Your task to perform on an android device: Open Google Chrome and click the shortcut for Amazon.com Image 0: 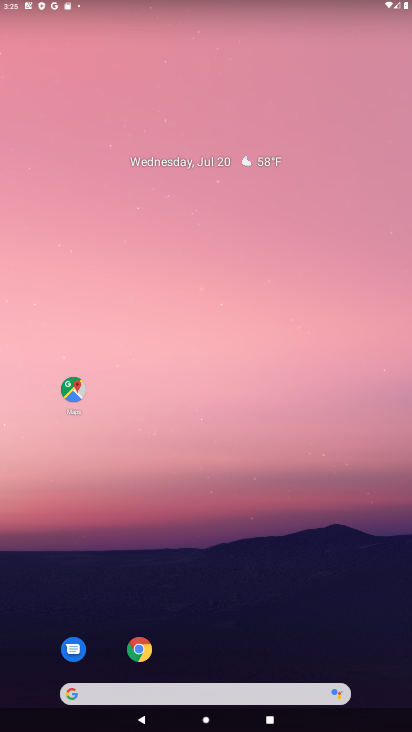
Step 0: click (142, 649)
Your task to perform on an android device: Open Google Chrome and click the shortcut for Amazon.com Image 1: 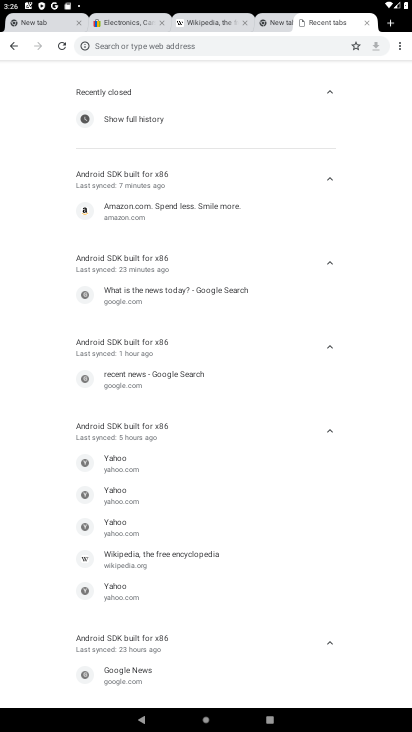
Step 1: click (399, 47)
Your task to perform on an android device: Open Google Chrome and click the shortcut for Amazon.com Image 2: 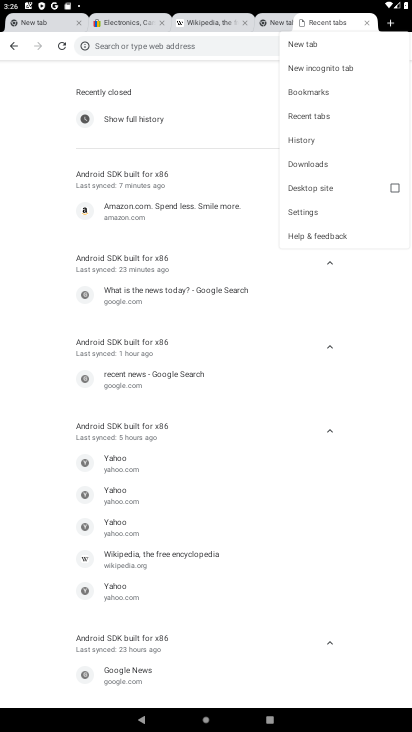
Step 2: click (315, 43)
Your task to perform on an android device: Open Google Chrome and click the shortcut for Amazon.com Image 3: 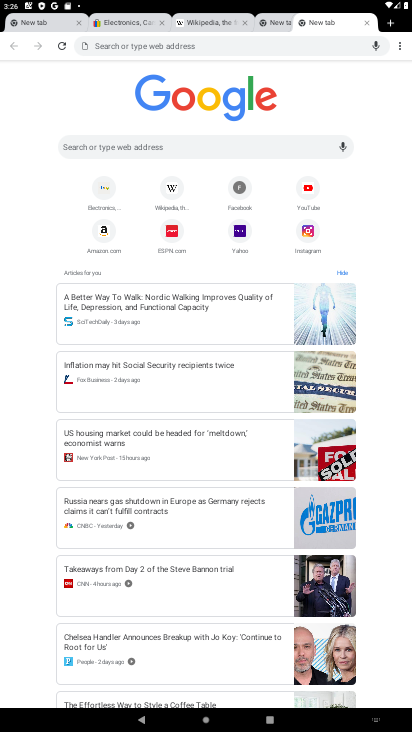
Step 3: click (106, 227)
Your task to perform on an android device: Open Google Chrome and click the shortcut for Amazon.com Image 4: 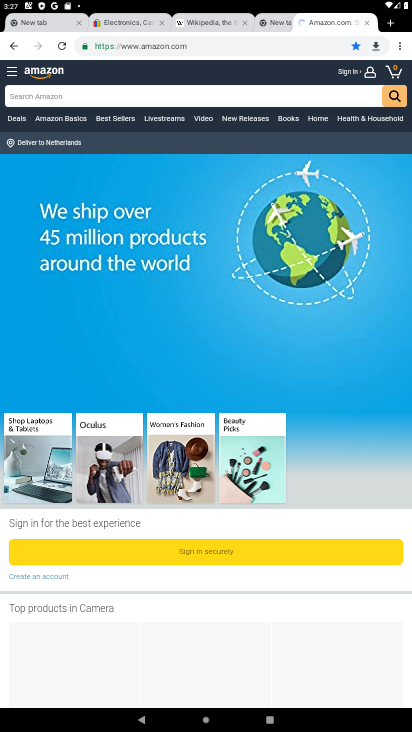
Step 4: task complete